Your task to perform on an android device: Do I have any events today? Image 0: 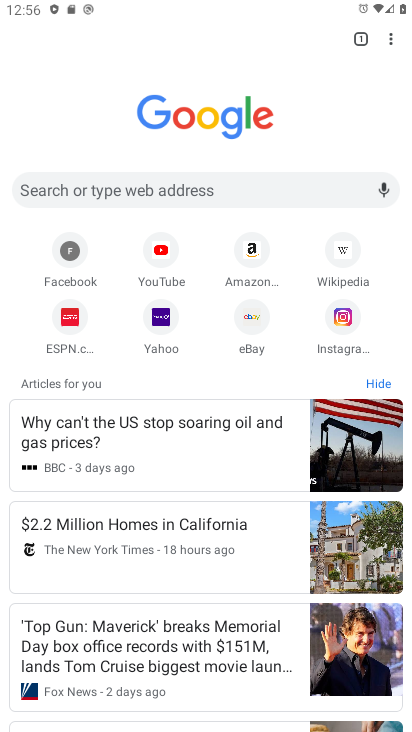
Step 0: press home button
Your task to perform on an android device: Do I have any events today? Image 1: 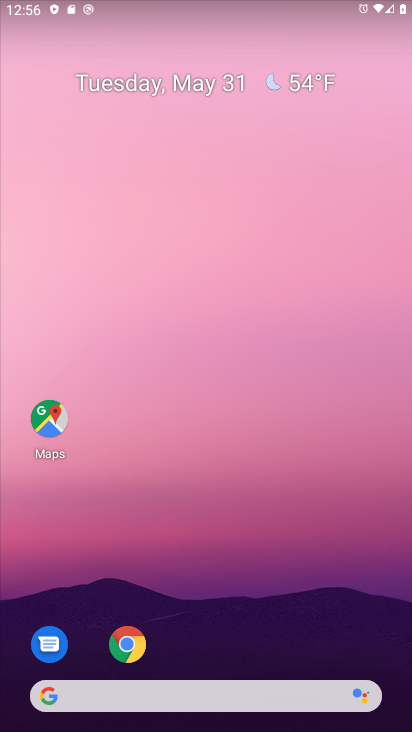
Step 1: drag from (237, 636) to (230, 218)
Your task to perform on an android device: Do I have any events today? Image 2: 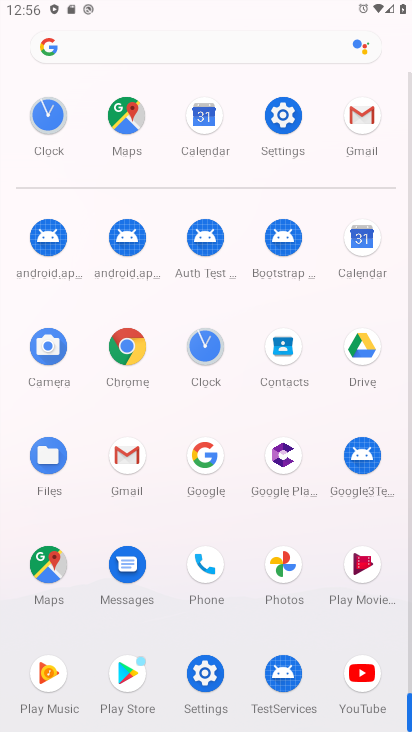
Step 2: click (205, 119)
Your task to perform on an android device: Do I have any events today? Image 3: 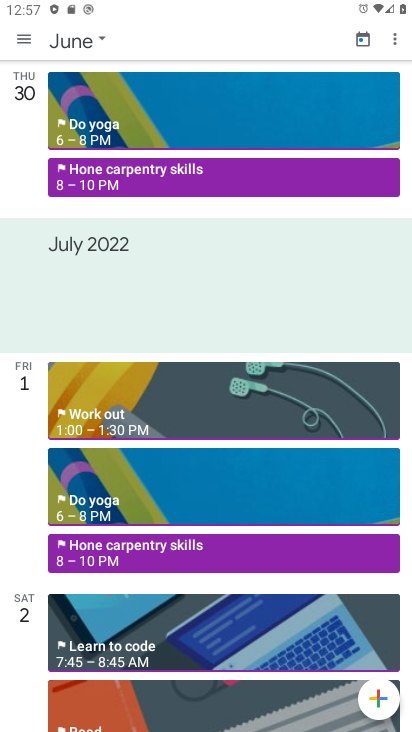
Step 3: task complete